Your task to perform on an android device: Open calendar and show me the first week of next month Image 0: 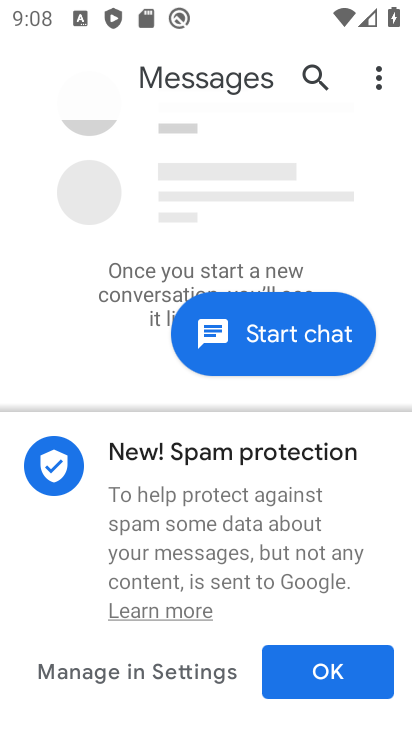
Step 0: press home button
Your task to perform on an android device: Open calendar and show me the first week of next month Image 1: 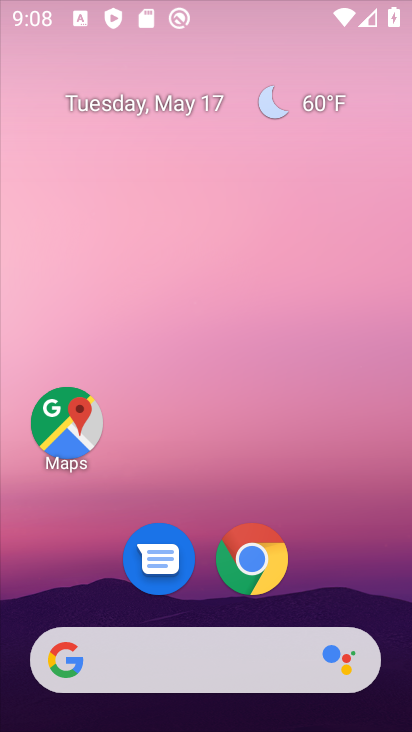
Step 1: drag from (251, 530) to (278, 146)
Your task to perform on an android device: Open calendar and show me the first week of next month Image 2: 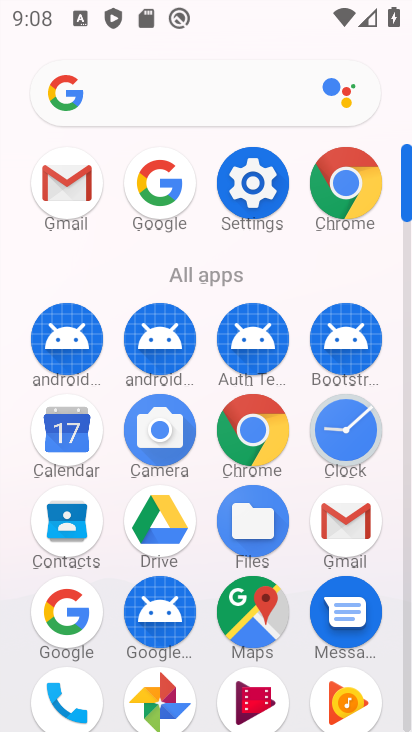
Step 2: click (56, 443)
Your task to perform on an android device: Open calendar and show me the first week of next month Image 3: 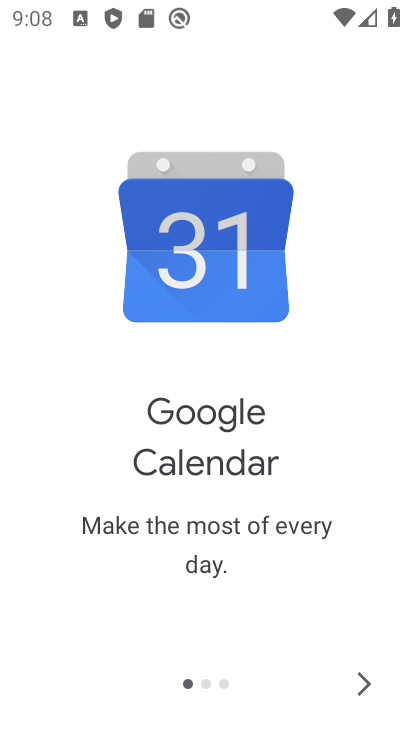
Step 3: click (368, 674)
Your task to perform on an android device: Open calendar and show me the first week of next month Image 4: 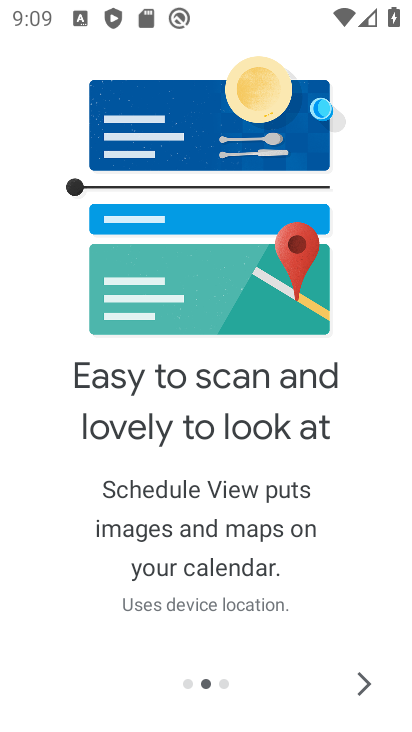
Step 4: click (378, 686)
Your task to perform on an android device: Open calendar and show me the first week of next month Image 5: 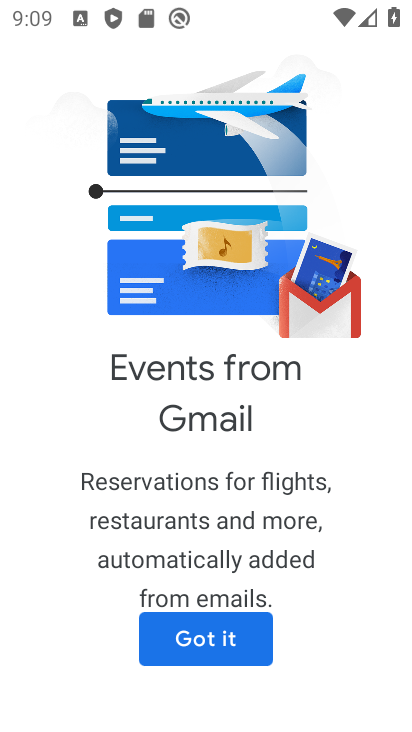
Step 5: click (224, 645)
Your task to perform on an android device: Open calendar and show me the first week of next month Image 6: 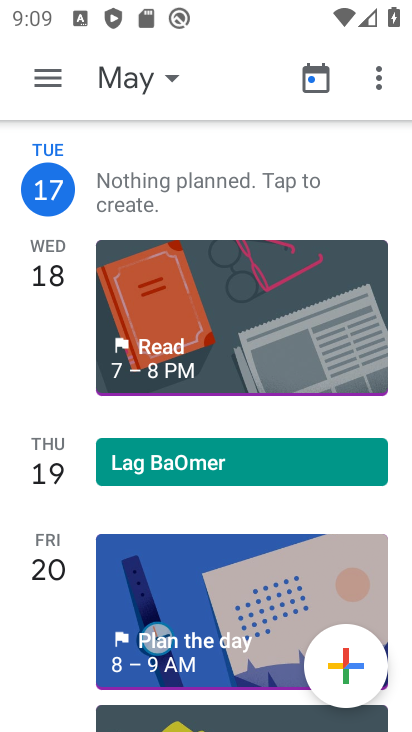
Step 6: click (169, 87)
Your task to perform on an android device: Open calendar and show me the first week of next month Image 7: 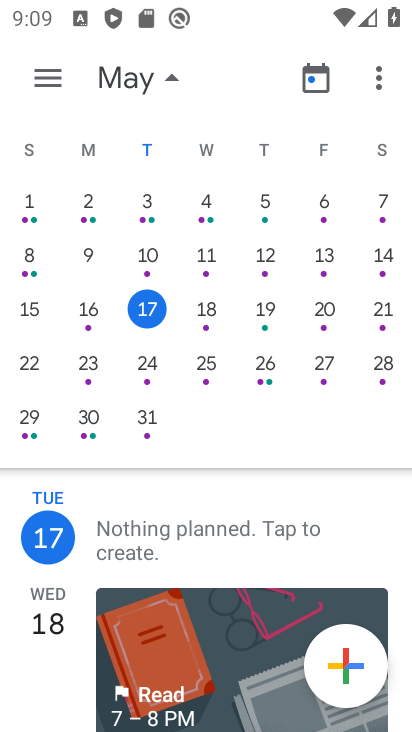
Step 7: drag from (335, 349) to (177, 343)
Your task to perform on an android device: Open calendar and show me the first week of next month Image 8: 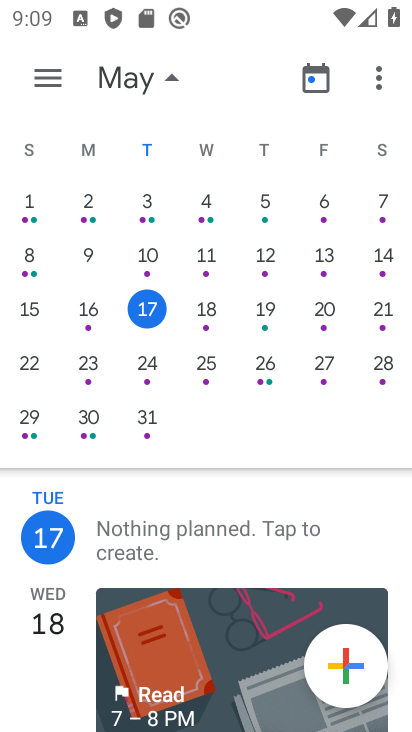
Step 8: click (23, 389)
Your task to perform on an android device: Open calendar and show me the first week of next month Image 9: 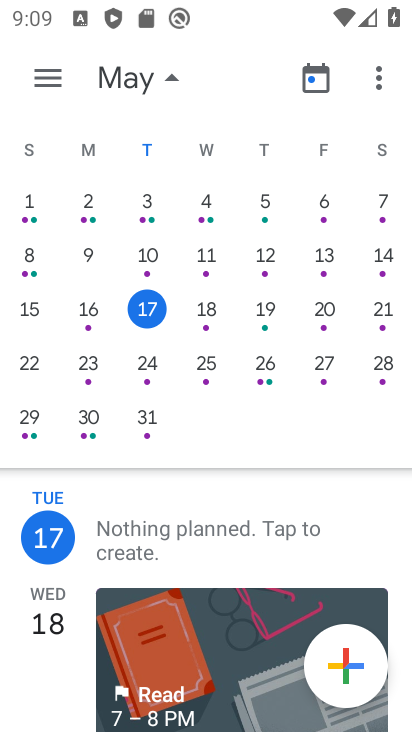
Step 9: drag from (292, 322) to (17, 302)
Your task to perform on an android device: Open calendar and show me the first week of next month Image 10: 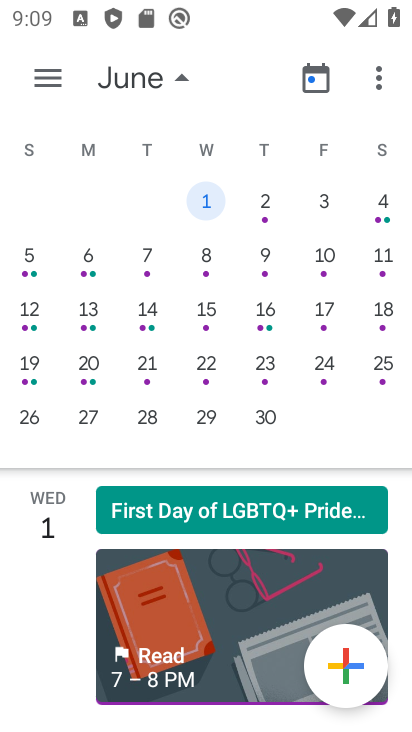
Step 10: click (37, 277)
Your task to perform on an android device: Open calendar and show me the first week of next month Image 11: 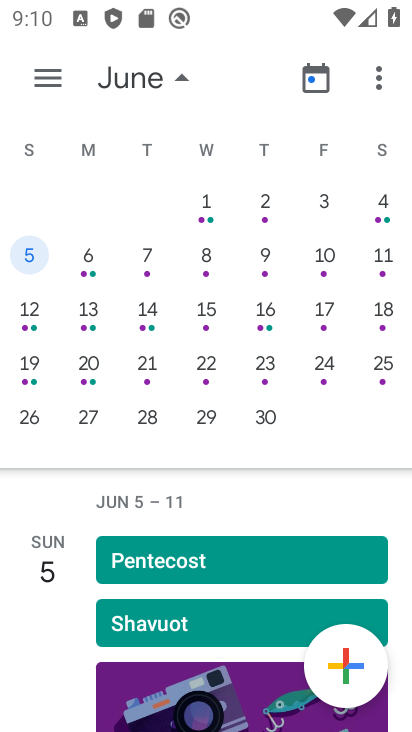
Step 11: task complete